Your task to perform on an android device: Open Amazon Image 0: 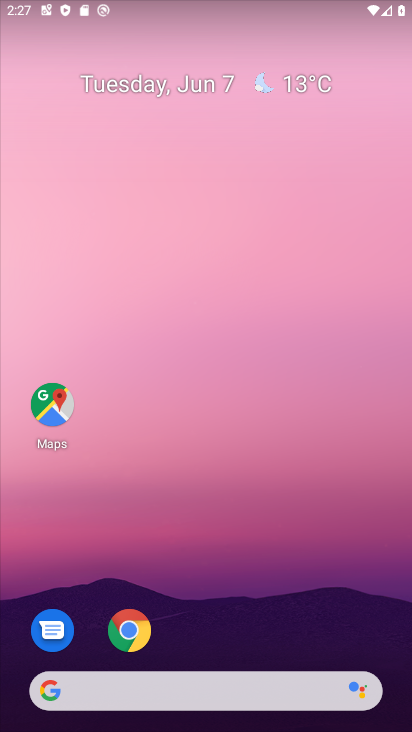
Step 0: drag from (227, 600) to (235, 398)
Your task to perform on an android device: Open Amazon Image 1: 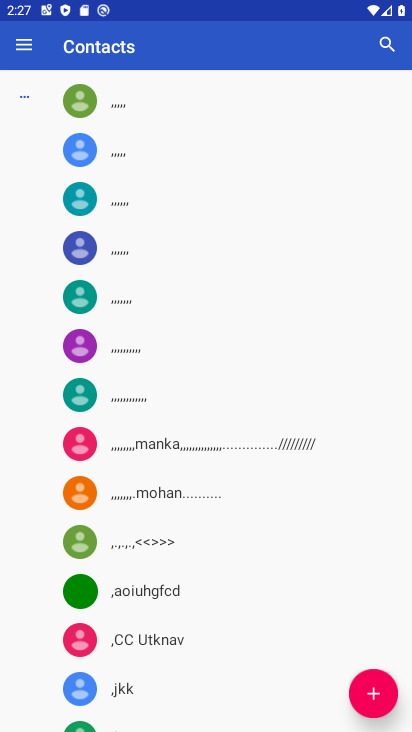
Step 1: press home button
Your task to perform on an android device: Open Amazon Image 2: 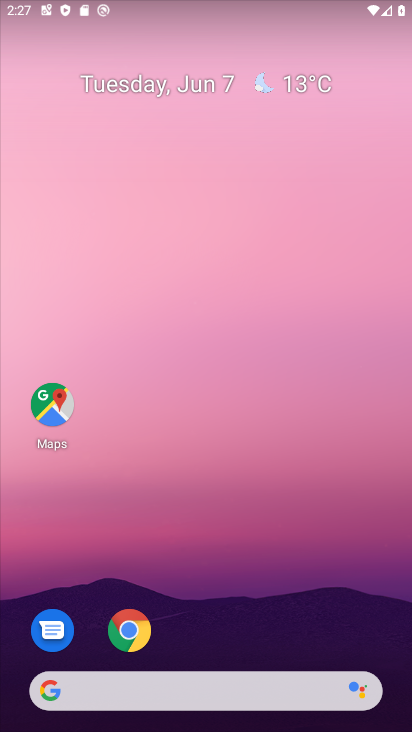
Step 2: click (133, 632)
Your task to perform on an android device: Open Amazon Image 3: 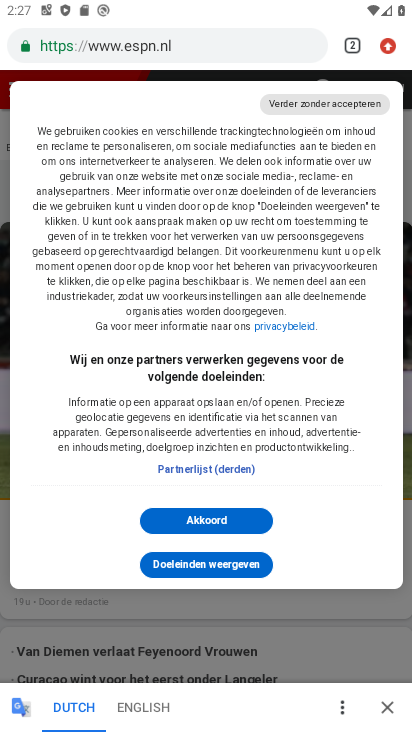
Step 3: click (350, 45)
Your task to perform on an android device: Open Amazon Image 4: 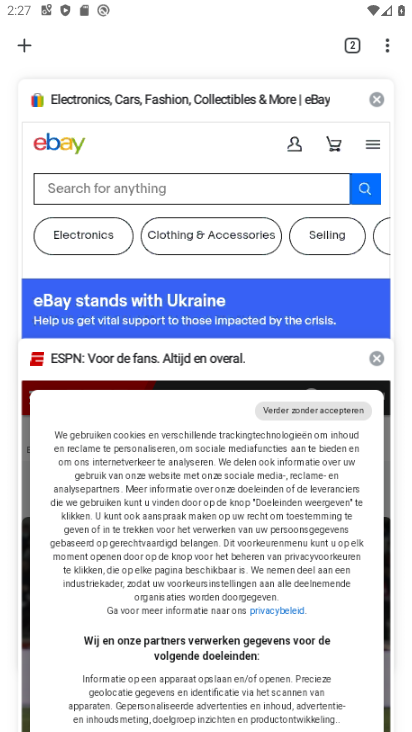
Step 4: click (20, 35)
Your task to perform on an android device: Open Amazon Image 5: 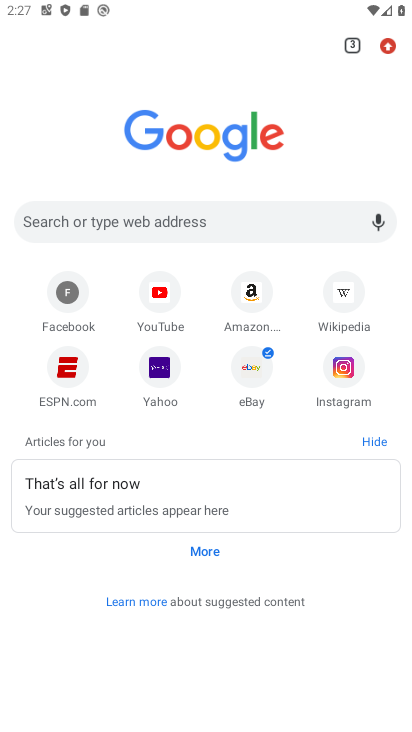
Step 5: click (246, 291)
Your task to perform on an android device: Open Amazon Image 6: 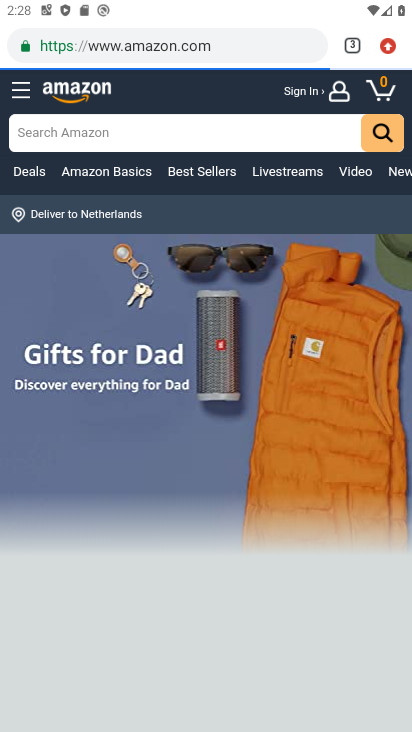
Step 6: task complete